Your task to perform on an android device: change the clock display to show seconds Image 0: 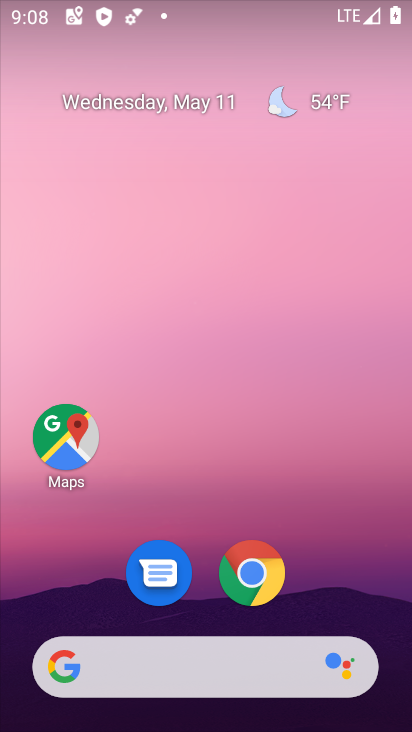
Step 0: drag from (262, 638) to (251, 3)
Your task to perform on an android device: change the clock display to show seconds Image 1: 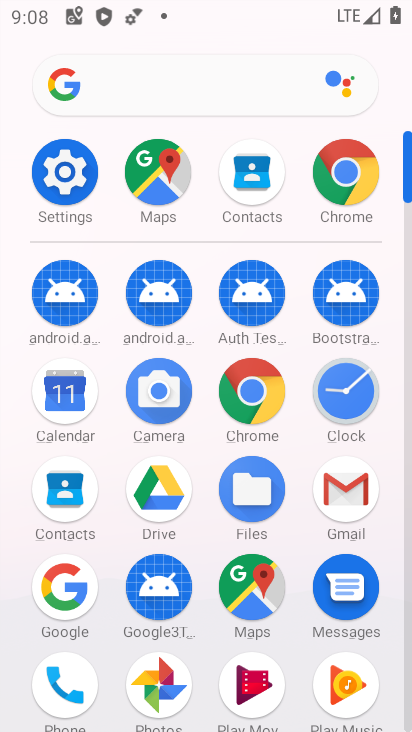
Step 1: click (68, 181)
Your task to perform on an android device: change the clock display to show seconds Image 2: 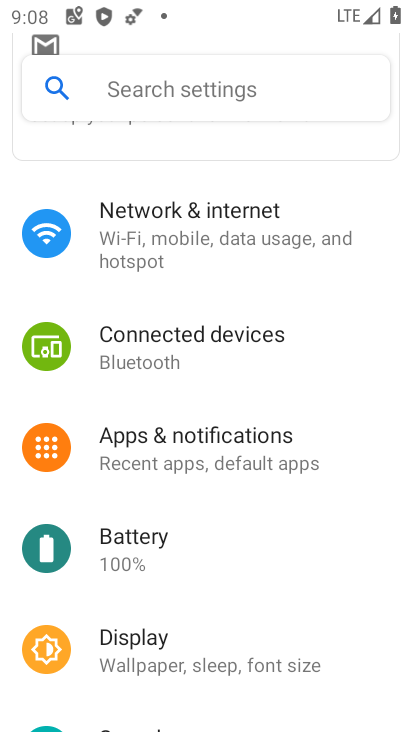
Step 2: press home button
Your task to perform on an android device: change the clock display to show seconds Image 3: 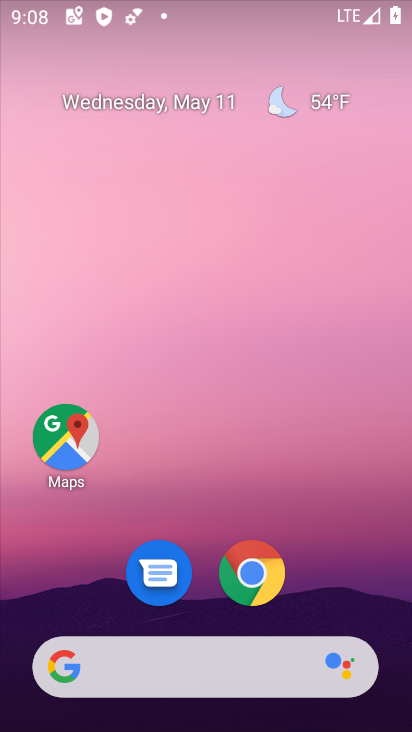
Step 3: drag from (215, 664) to (407, 515)
Your task to perform on an android device: change the clock display to show seconds Image 4: 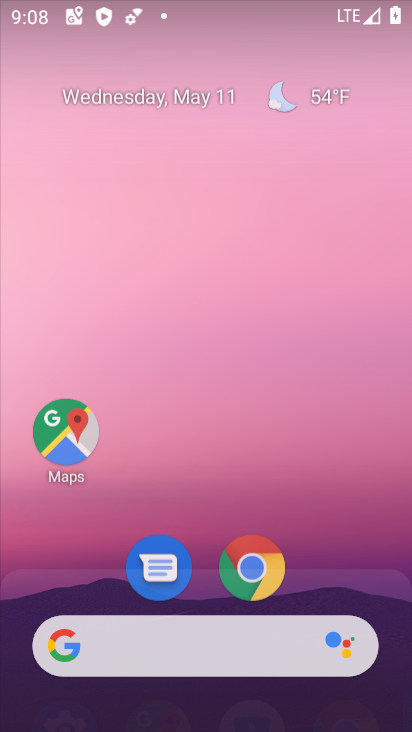
Step 4: click (343, 410)
Your task to perform on an android device: change the clock display to show seconds Image 5: 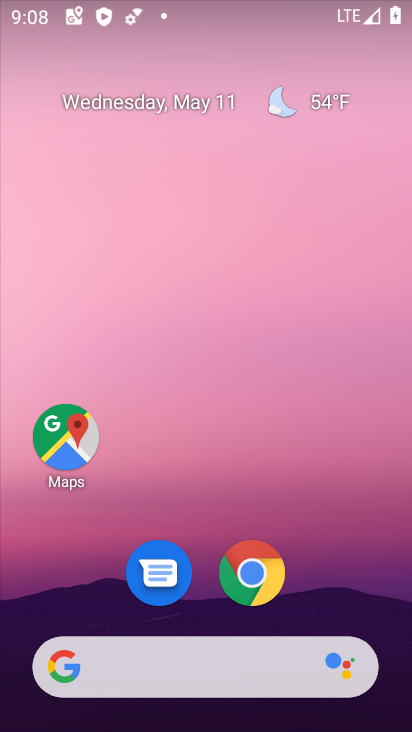
Step 5: drag from (316, 638) to (317, 13)
Your task to perform on an android device: change the clock display to show seconds Image 6: 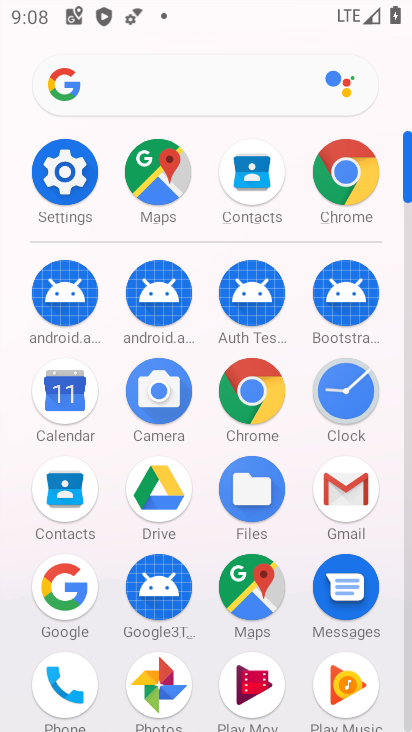
Step 6: click (347, 397)
Your task to perform on an android device: change the clock display to show seconds Image 7: 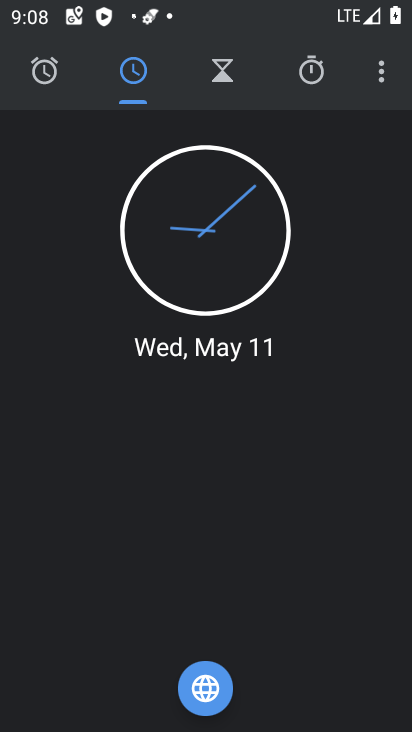
Step 7: click (374, 71)
Your task to perform on an android device: change the clock display to show seconds Image 8: 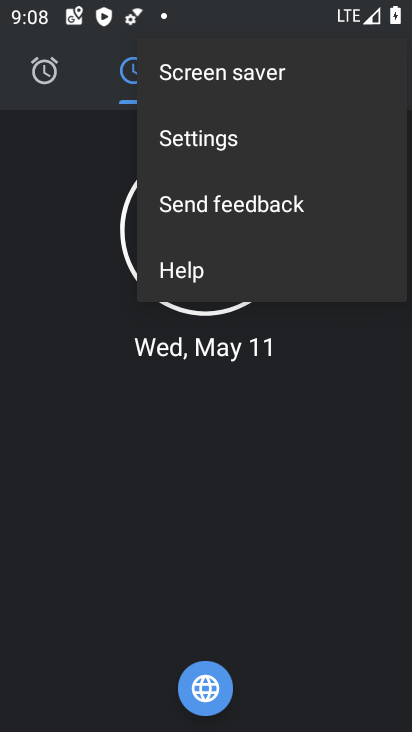
Step 8: click (270, 135)
Your task to perform on an android device: change the clock display to show seconds Image 9: 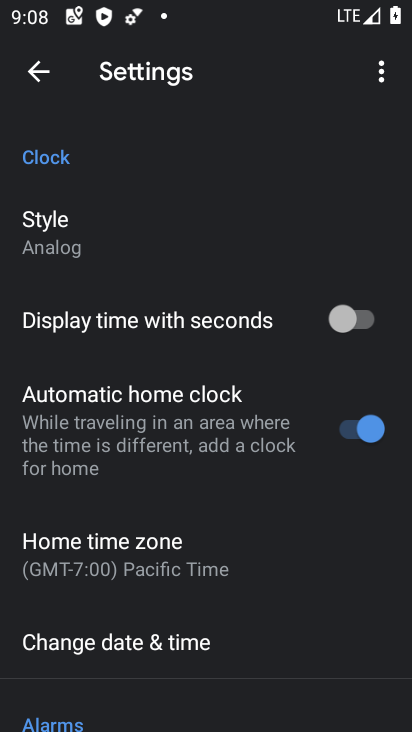
Step 9: click (349, 322)
Your task to perform on an android device: change the clock display to show seconds Image 10: 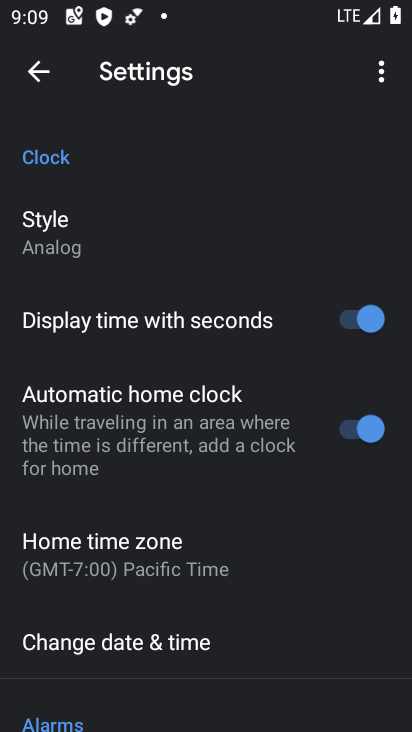
Step 10: task complete